Your task to perform on an android device: Go to calendar. Show me events next week Image 0: 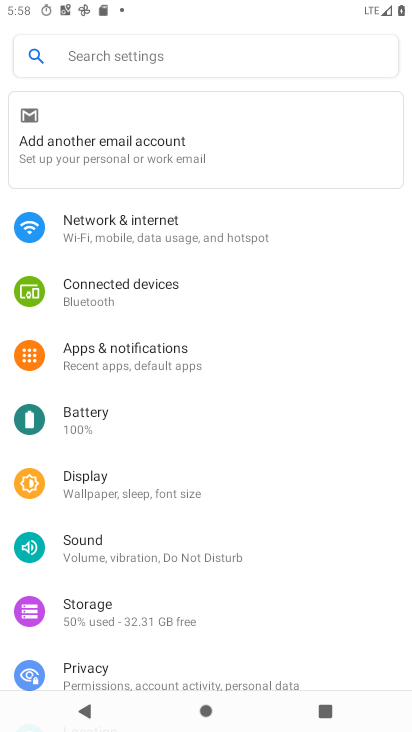
Step 0: press home button
Your task to perform on an android device: Go to calendar. Show me events next week Image 1: 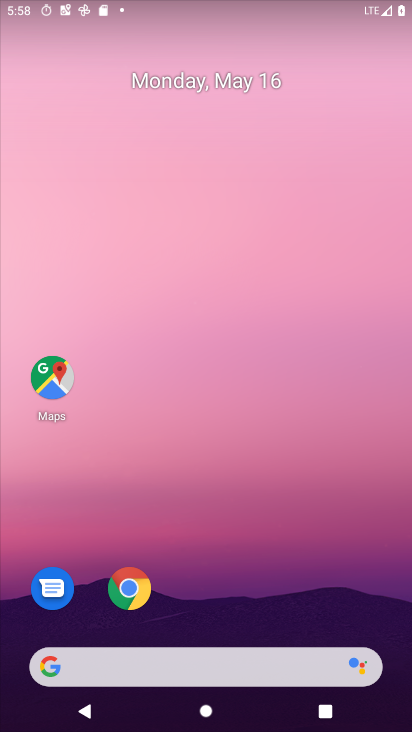
Step 1: drag from (239, 449) to (180, 21)
Your task to perform on an android device: Go to calendar. Show me events next week Image 2: 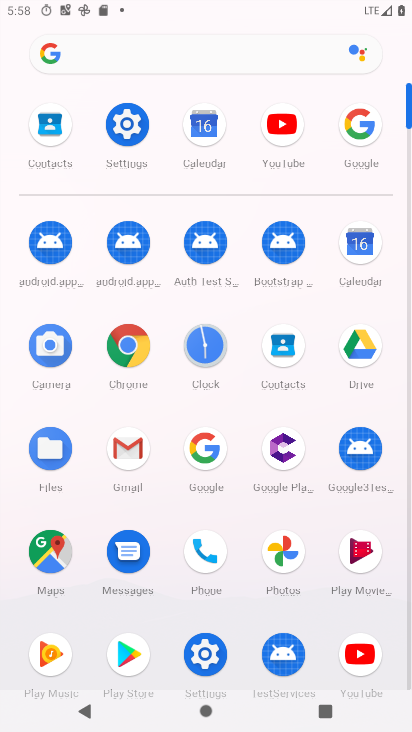
Step 2: click (359, 237)
Your task to perform on an android device: Go to calendar. Show me events next week Image 3: 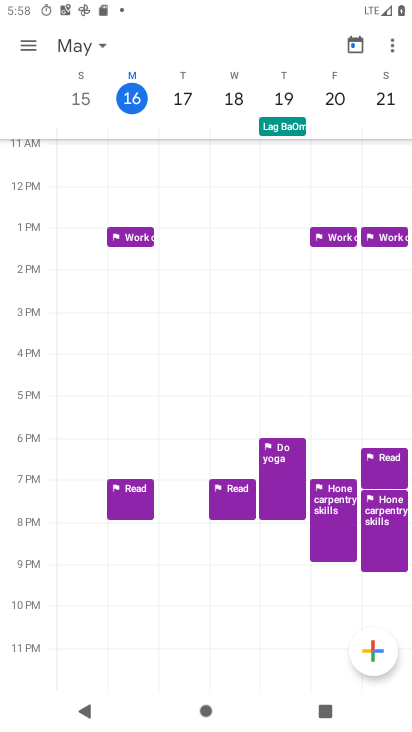
Step 3: click (82, 46)
Your task to perform on an android device: Go to calendar. Show me events next week Image 4: 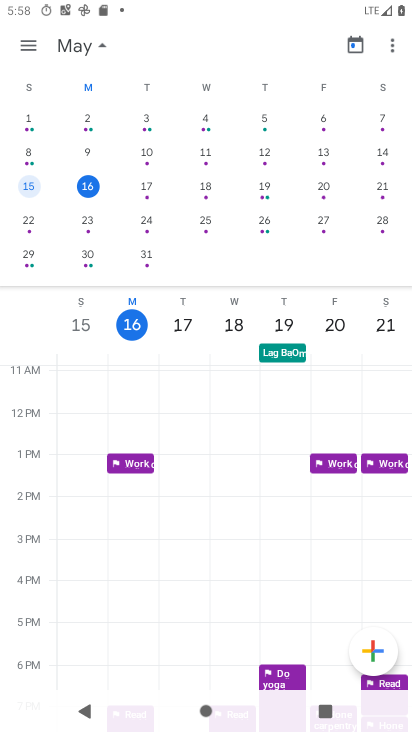
Step 4: click (36, 216)
Your task to perform on an android device: Go to calendar. Show me events next week Image 5: 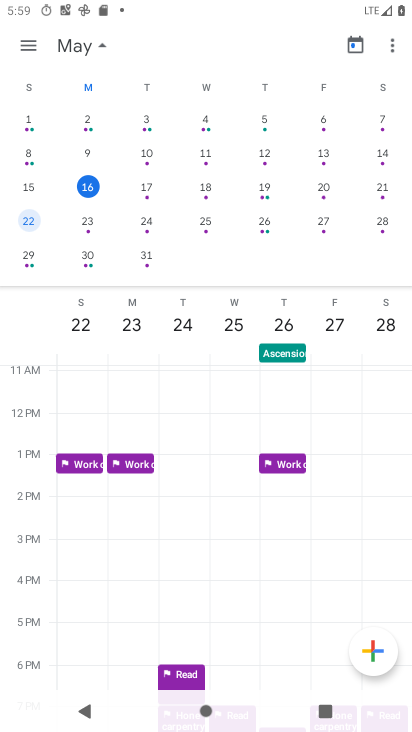
Step 5: task complete